Your task to perform on an android device: Search for "razer kraken" on walmart.com, select the first entry, and add it to the cart. Image 0: 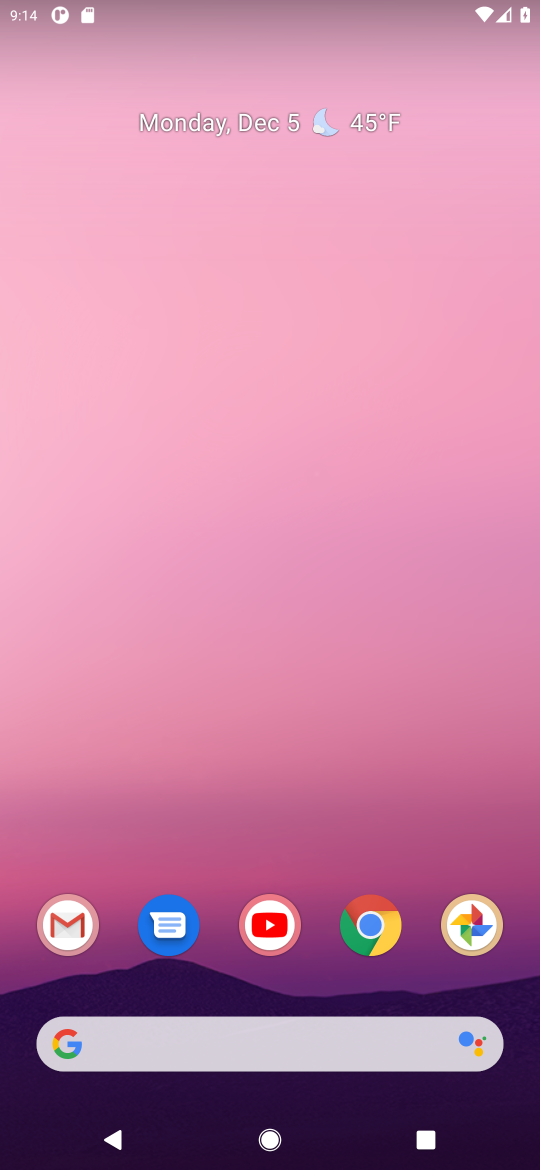
Step 0: click (364, 935)
Your task to perform on an android device: Search for "razer kraken" on walmart.com, select the first entry, and add it to the cart. Image 1: 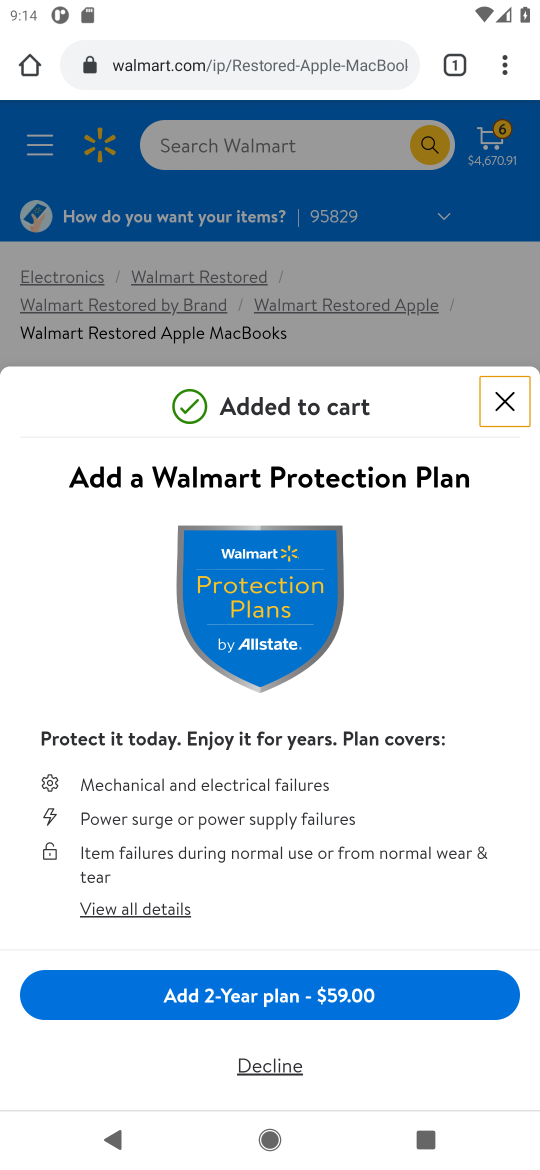
Step 1: click (504, 402)
Your task to perform on an android device: Search for "razer kraken" on walmart.com, select the first entry, and add it to the cart. Image 2: 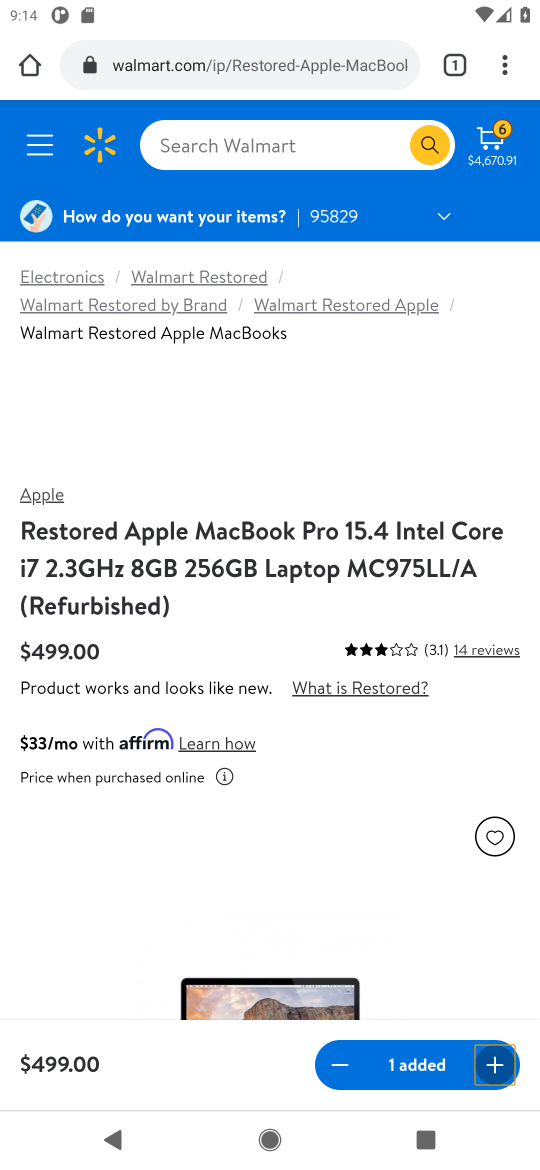
Step 2: click (268, 135)
Your task to perform on an android device: Search for "razer kraken" on walmart.com, select the first entry, and add it to the cart. Image 3: 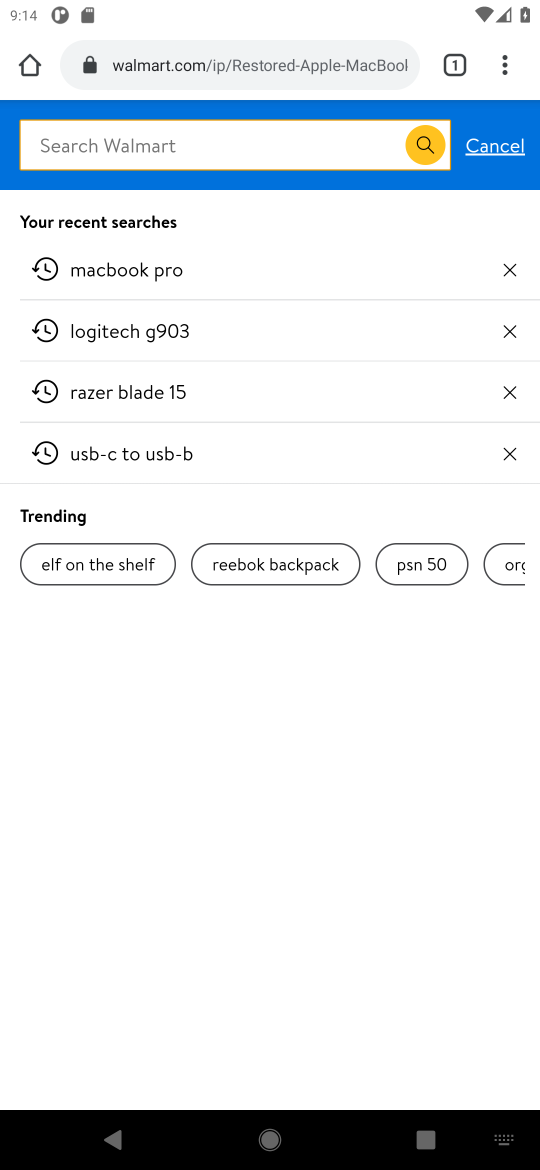
Step 3: type "razer kraken"
Your task to perform on an android device: Search for "razer kraken" on walmart.com, select the first entry, and add it to the cart. Image 4: 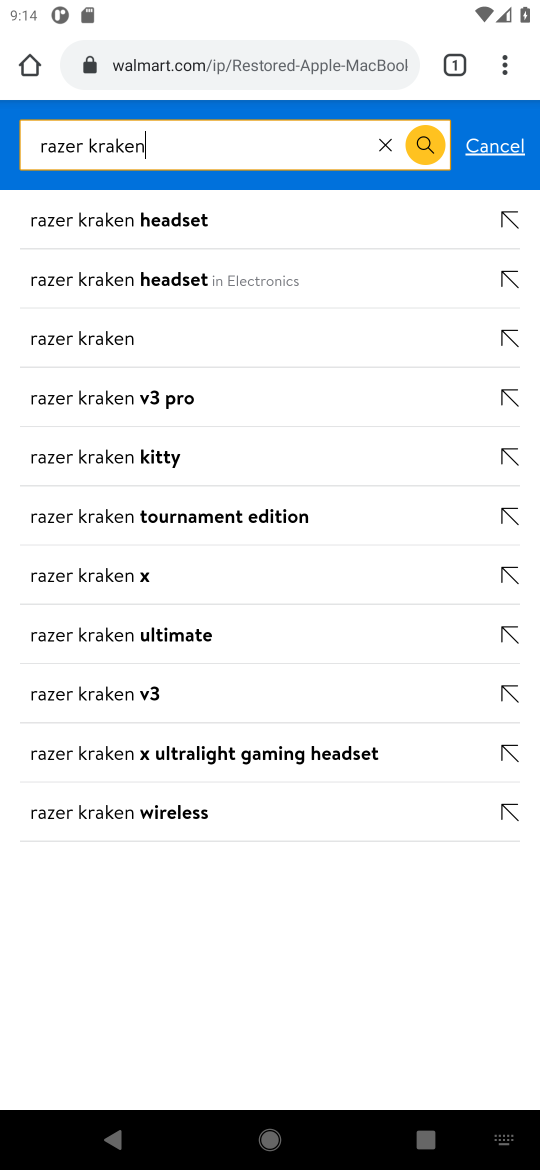
Step 4: click (99, 337)
Your task to perform on an android device: Search for "razer kraken" on walmart.com, select the first entry, and add it to the cart. Image 5: 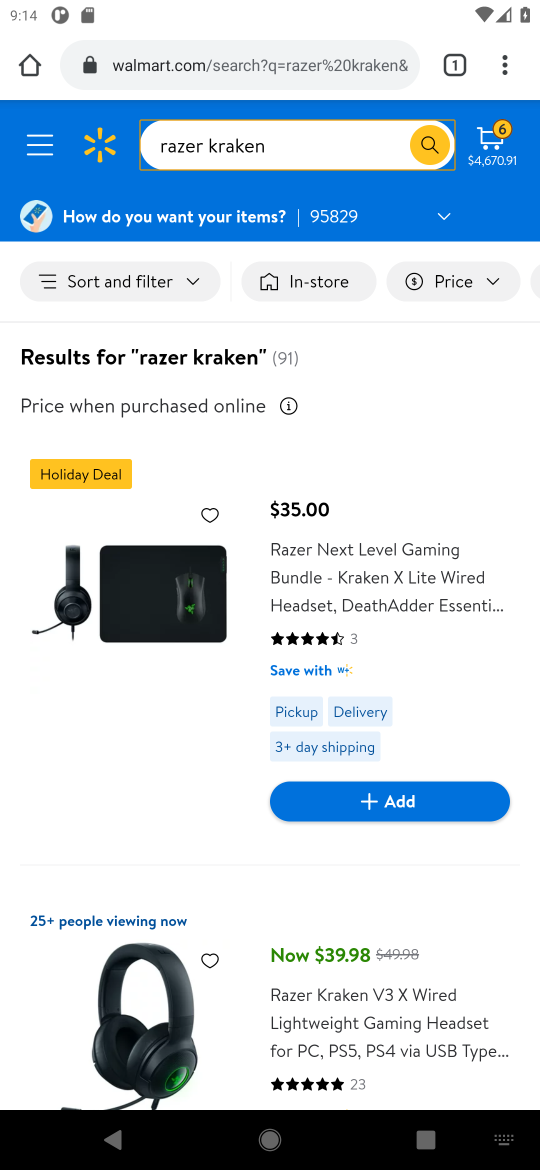
Step 5: click (372, 811)
Your task to perform on an android device: Search for "razer kraken" on walmart.com, select the first entry, and add it to the cart. Image 6: 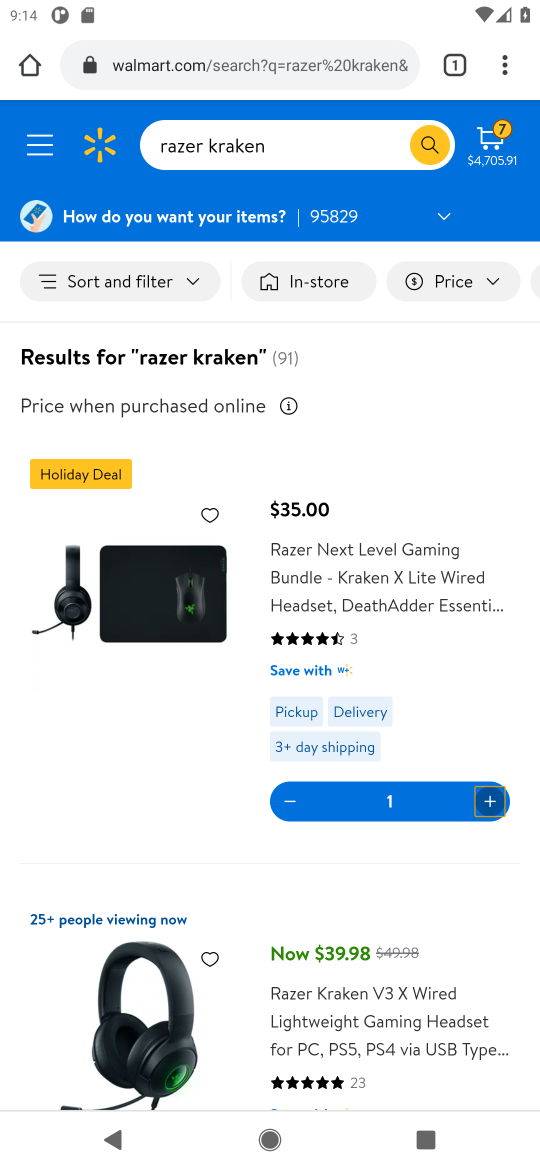
Step 6: task complete